Your task to perform on an android device: clear history in the chrome app Image 0: 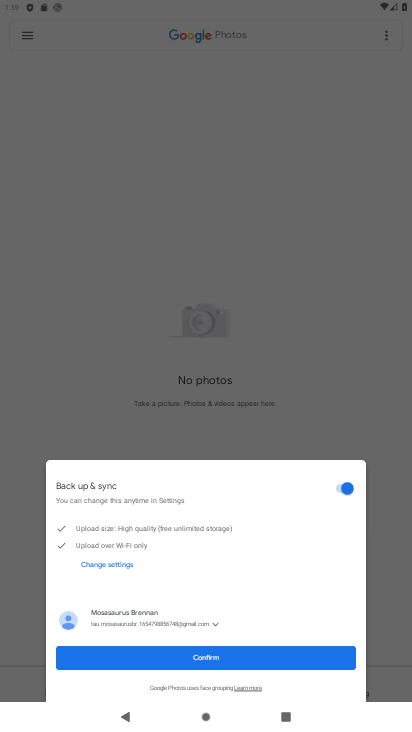
Step 0: press home button
Your task to perform on an android device: clear history in the chrome app Image 1: 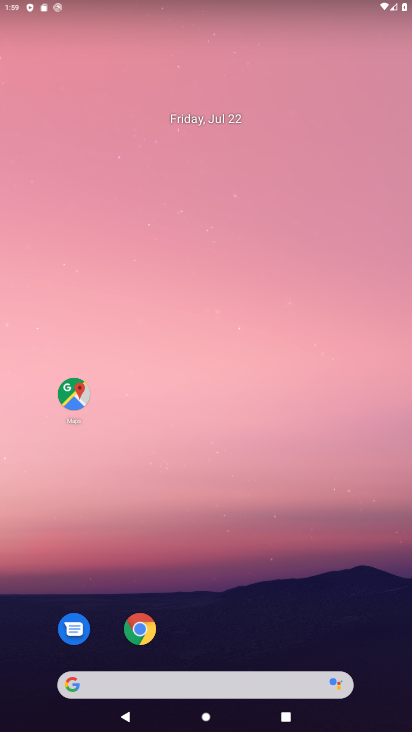
Step 1: drag from (271, 570) to (249, 46)
Your task to perform on an android device: clear history in the chrome app Image 2: 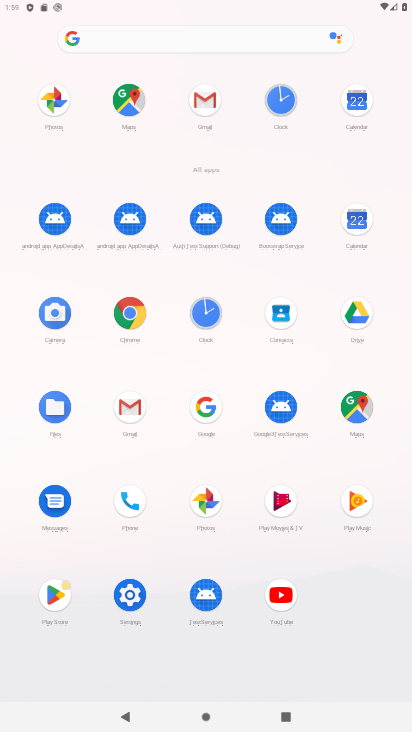
Step 2: click (127, 311)
Your task to perform on an android device: clear history in the chrome app Image 3: 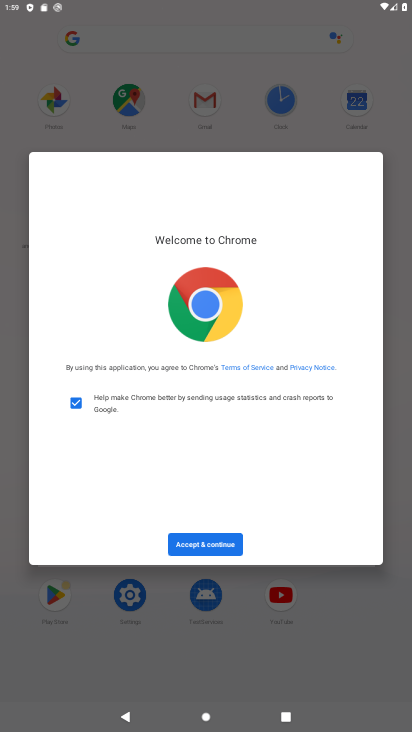
Step 3: click (200, 543)
Your task to perform on an android device: clear history in the chrome app Image 4: 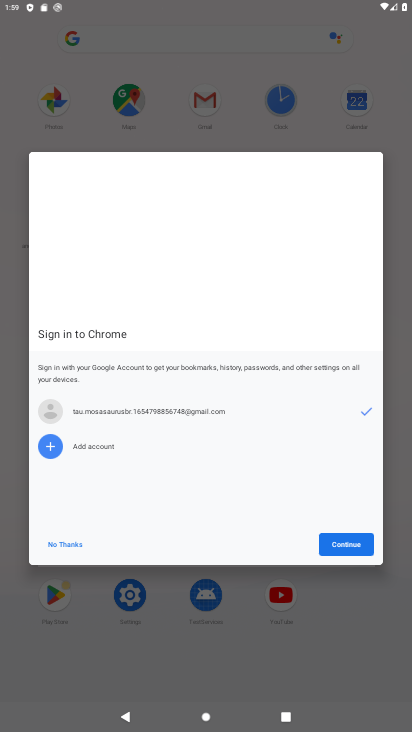
Step 4: click (345, 543)
Your task to perform on an android device: clear history in the chrome app Image 5: 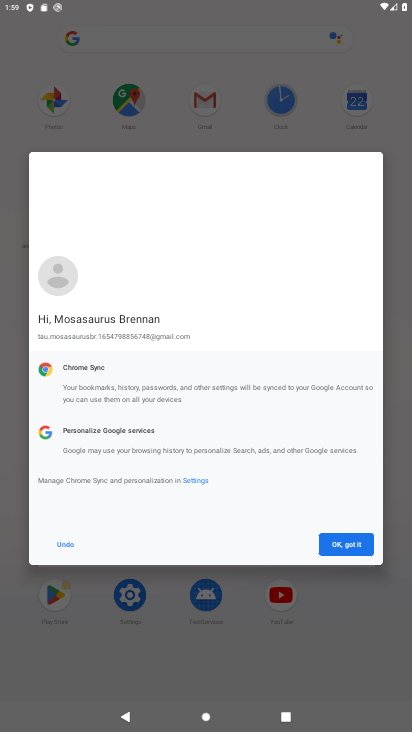
Step 5: click (345, 542)
Your task to perform on an android device: clear history in the chrome app Image 6: 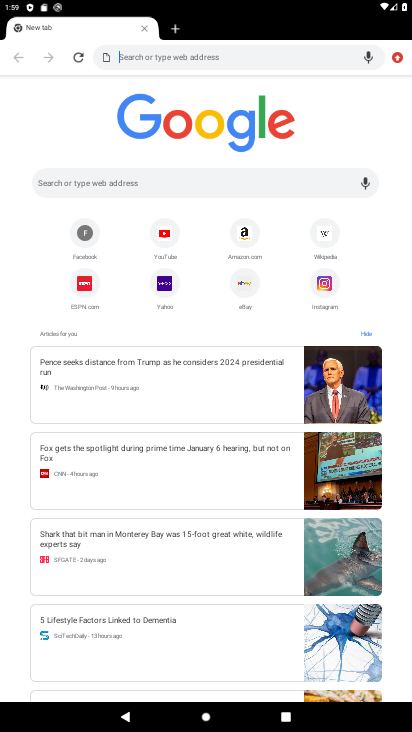
Step 6: drag from (399, 59) to (277, 212)
Your task to perform on an android device: clear history in the chrome app Image 7: 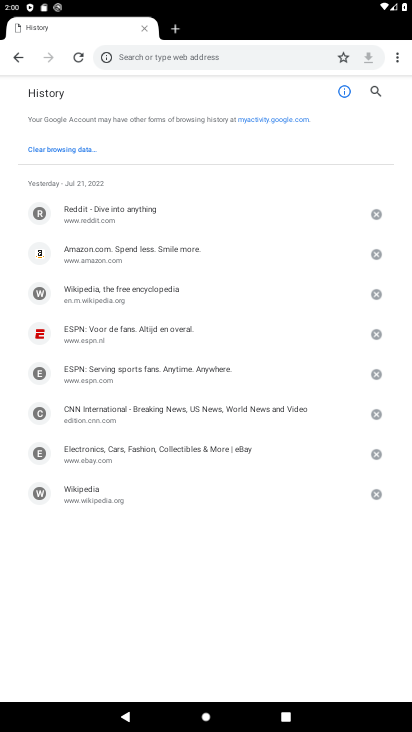
Step 7: click (50, 150)
Your task to perform on an android device: clear history in the chrome app Image 8: 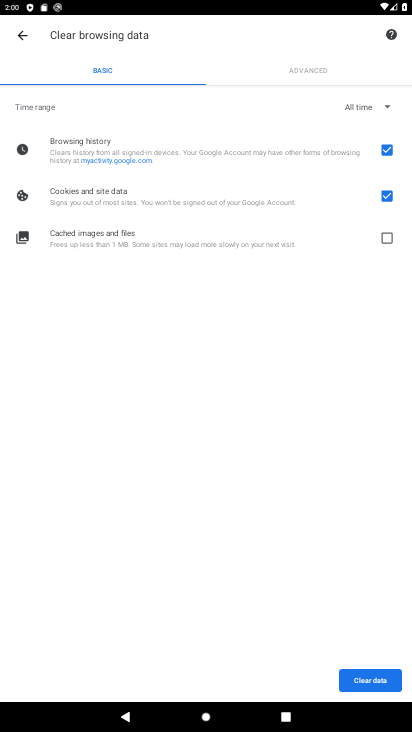
Step 8: click (367, 672)
Your task to perform on an android device: clear history in the chrome app Image 9: 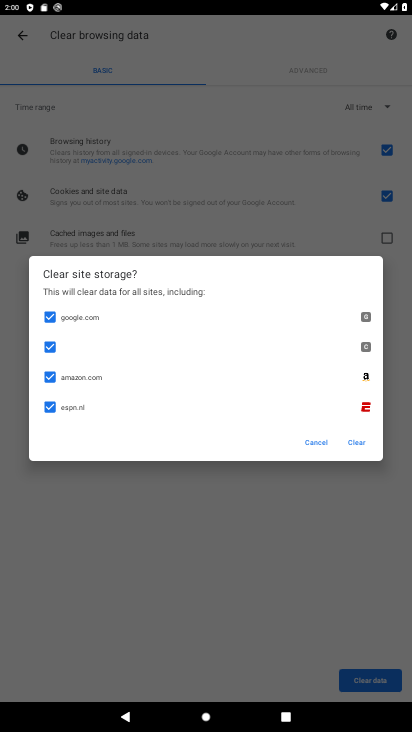
Step 9: click (359, 440)
Your task to perform on an android device: clear history in the chrome app Image 10: 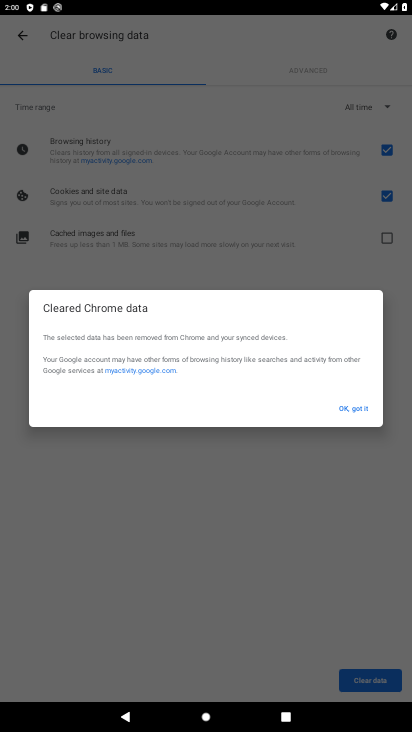
Step 10: click (362, 413)
Your task to perform on an android device: clear history in the chrome app Image 11: 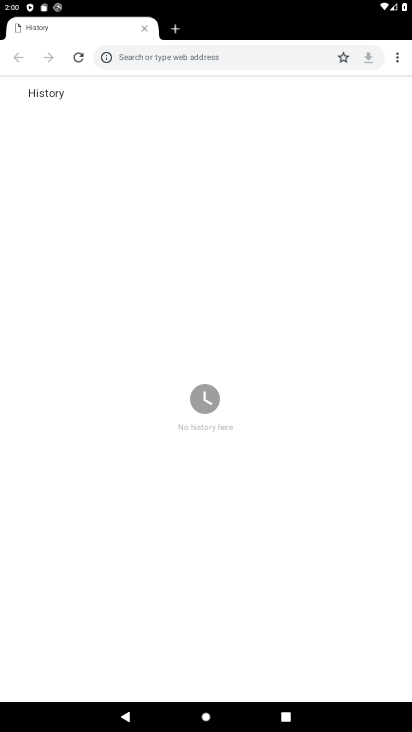
Step 11: task complete